Your task to perform on an android device: Open the web browser Image 0: 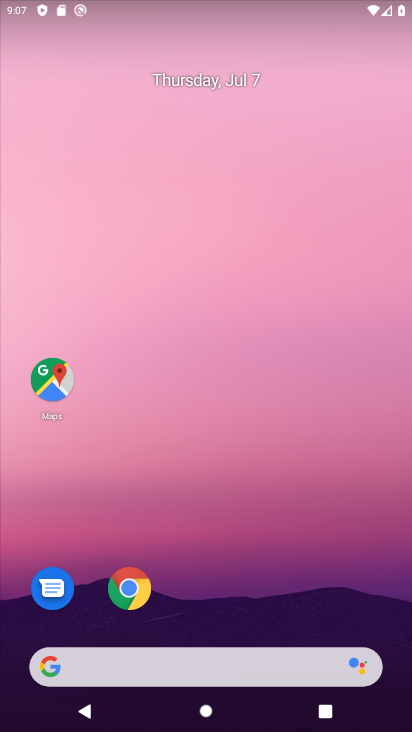
Step 0: click (204, 662)
Your task to perform on an android device: Open the web browser Image 1: 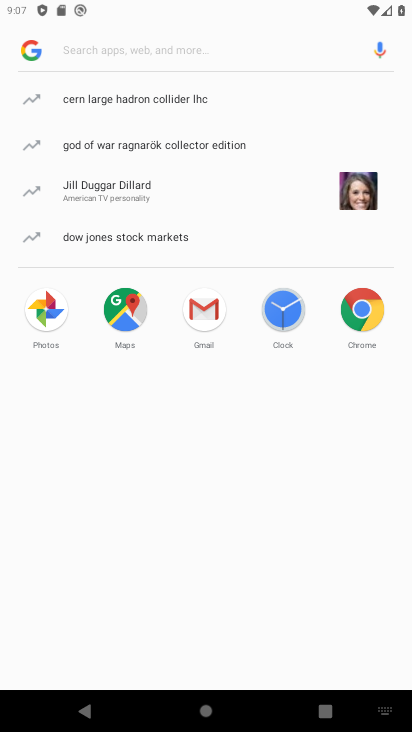
Step 1: task complete